Your task to perform on an android device: open a bookmark in the chrome app Image 0: 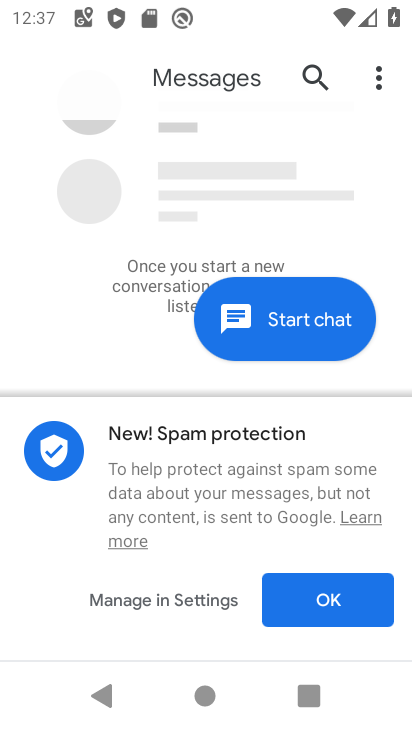
Step 0: press home button
Your task to perform on an android device: open a bookmark in the chrome app Image 1: 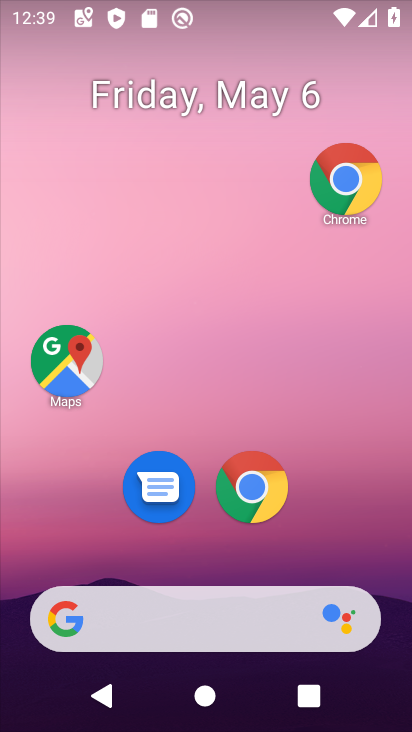
Step 1: click (247, 524)
Your task to perform on an android device: open a bookmark in the chrome app Image 2: 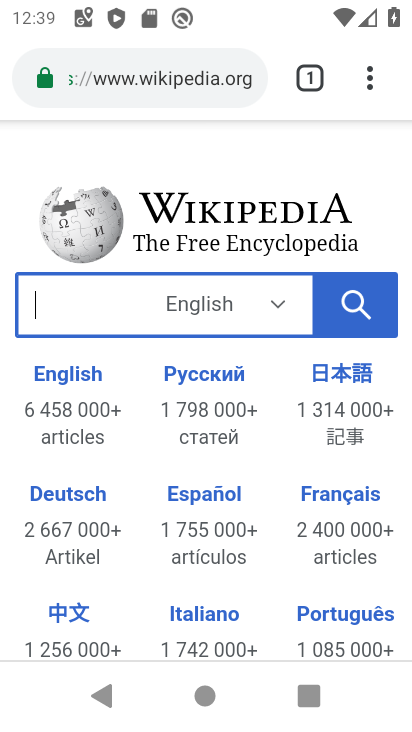
Step 2: click (373, 78)
Your task to perform on an android device: open a bookmark in the chrome app Image 3: 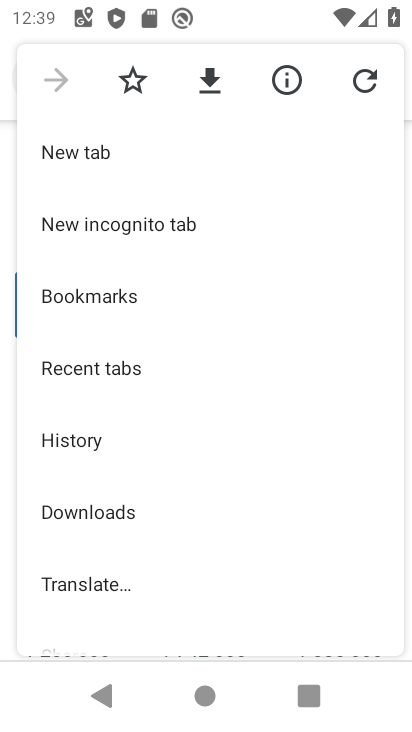
Step 3: click (165, 286)
Your task to perform on an android device: open a bookmark in the chrome app Image 4: 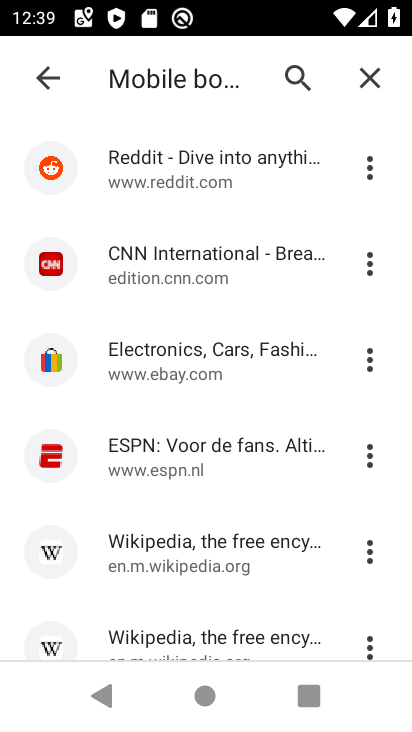
Step 4: click (179, 188)
Your task to perform on an android device: open a bookmark in the chrome app Image 5: 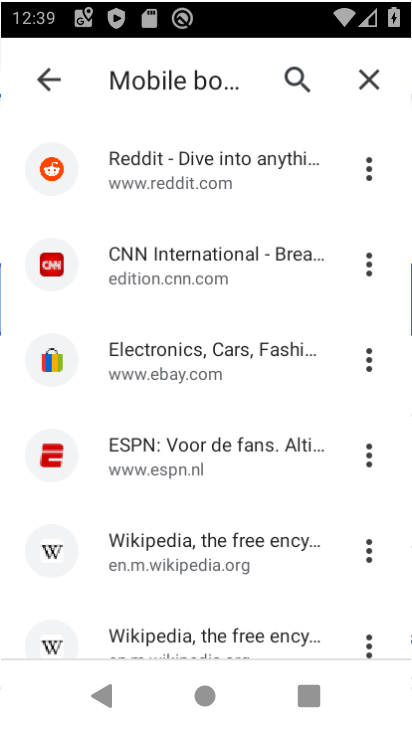
Step 5: task complete